Your task to perform on an android device: allow cookies in the chrome app Image 0: 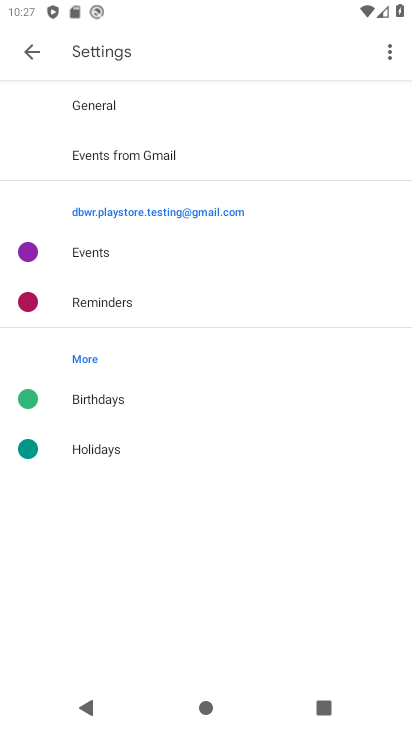
Step 0: press home button
Your task to perform on an android device: allow cookies in the chrome app Image 1: 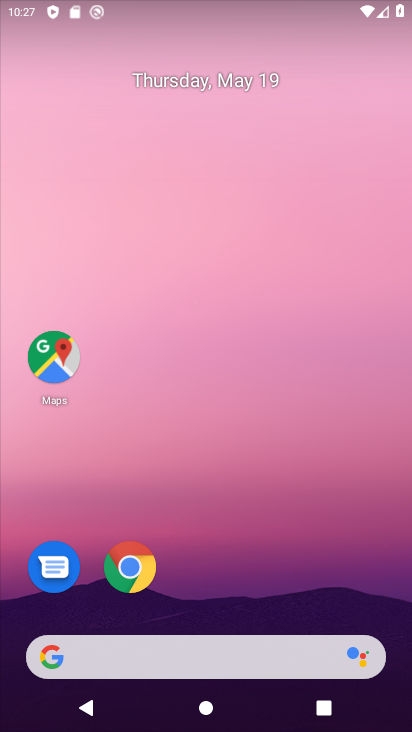
Step 1: click (140, 567)
Your task to perform on an android device: allow cookies in the chrome app Image 2: 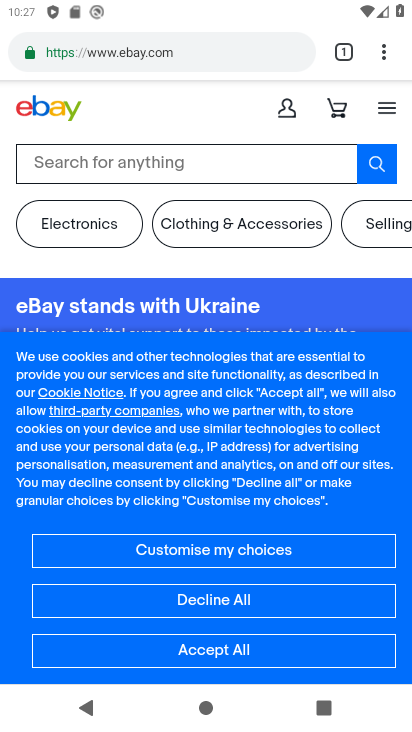
Step 2: click (382, 55)
Your task to perform on an android device: allow cookies in the chrome app Image 3: 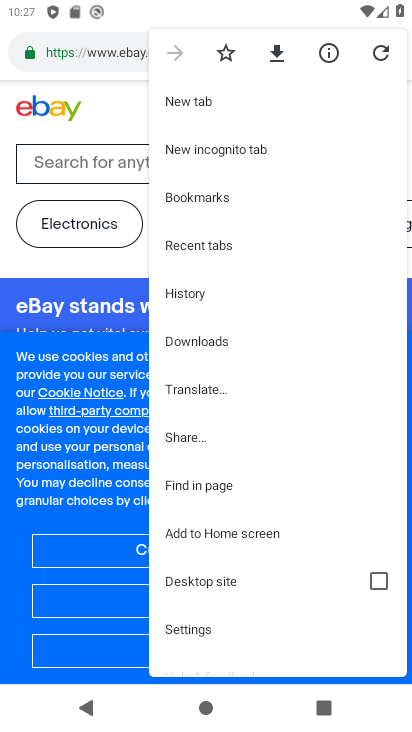
Step 3: click (187, 625)
Your task to perform on an android device: allow cookies in the chrome app Image 4: 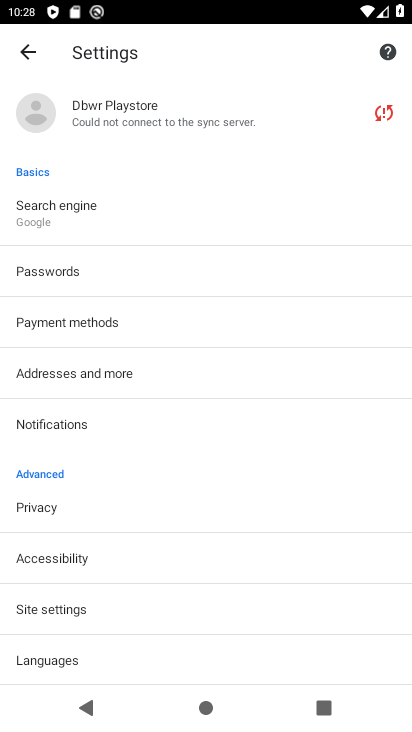
Step 4: click (96, 605)
Your task to perform on an android device: allow cookies in the chrome app Image 5: 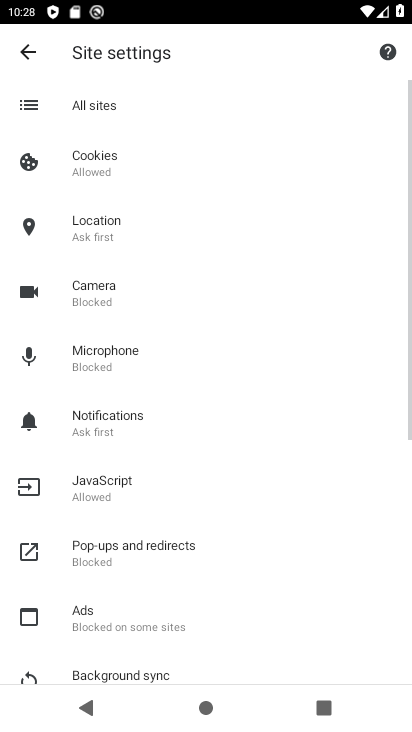
Step 5: click (97, 152)
Your task to perform on an android device: allow cookies in the chrome app Image 6: 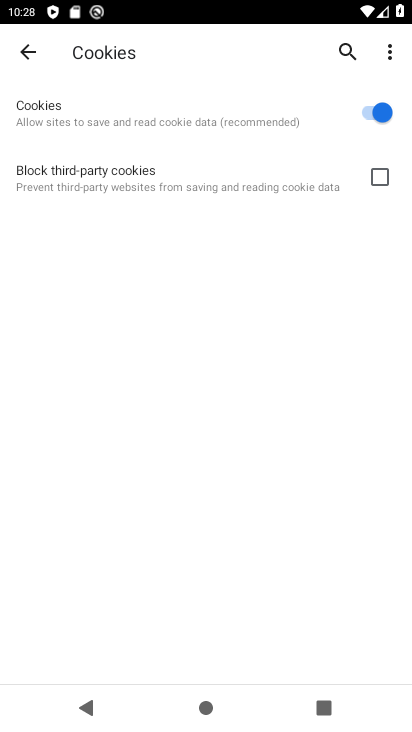
Step 6: task complete